Your task to perform on an android device: see sites visited before in the chrome app Image 0: 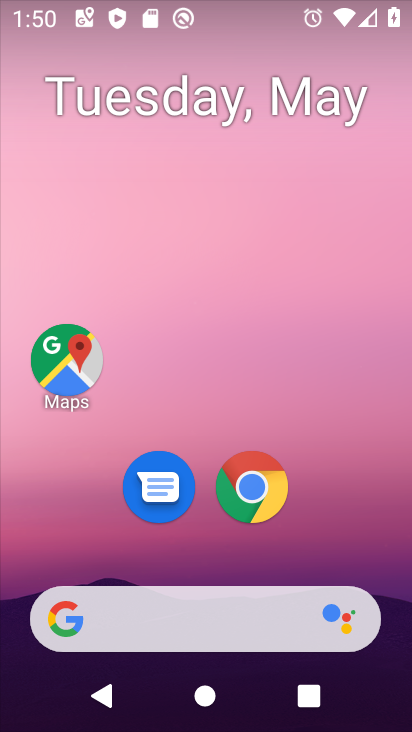
Step 0: drag from (369, 552) to (366, 105)
Your task to perform on an android device: see sites visited before in the chrome app Image 1: 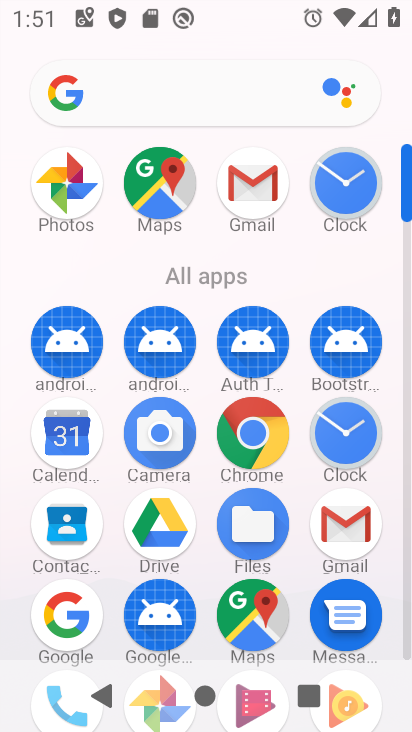
Step 1: click (264, 443)
Your task to perform on an android device: see sites visited before in the chrome app Image 2: 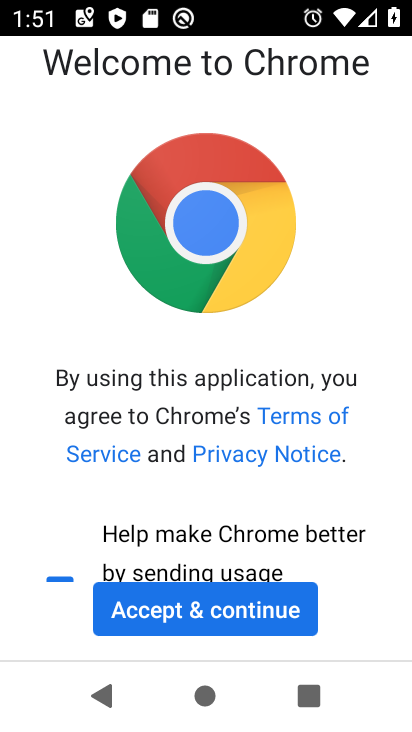
Step 2: click (231, 617)
Your task to perform on an android device: see sites visited before in the chrome app Image 3: 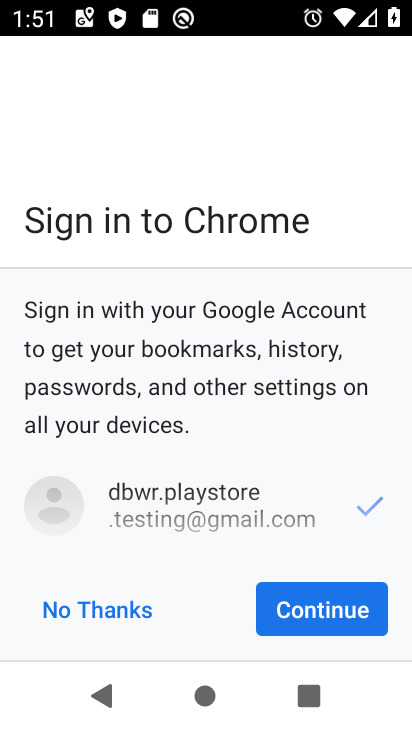
Step 3: click (289, 610)
Your task to perform on an android device: see sites visited before in the chrome app Image 4: 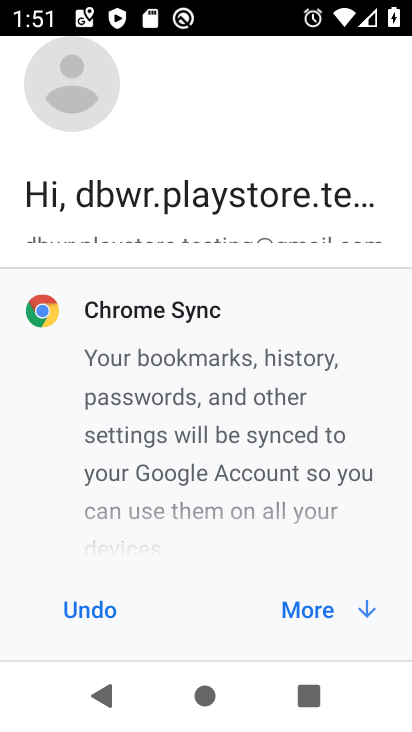
Step 4: click (289, 610)
Your task to perform on an android device: see sites visited before in the chrome app Image 5: 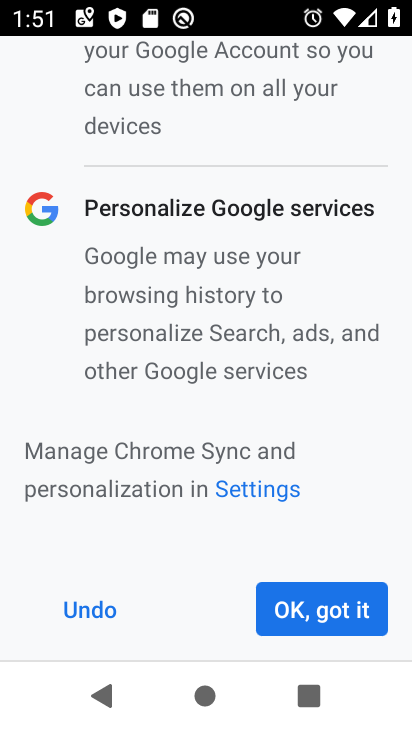
Step 5: click (289, 610)
Your task to perform on an android device: see sites visited before in the chrome app Image 6: 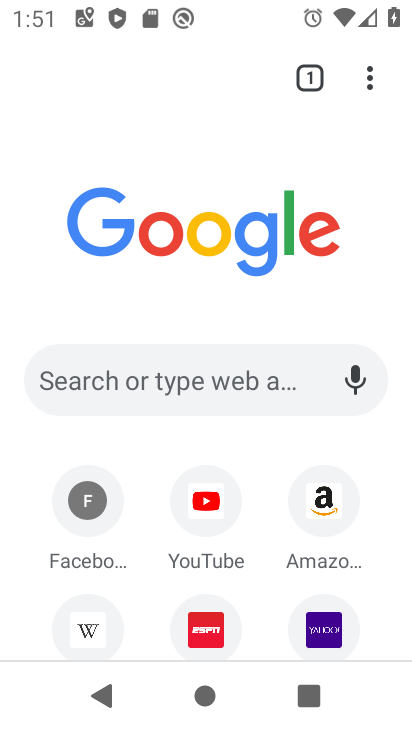
Step 6: click (368, 86)
Your task to perform on an android device: see sites visited before in the chrome app Image 7: 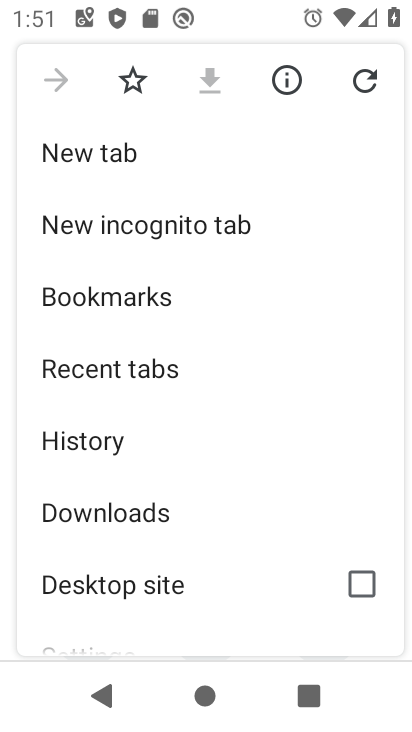
Step 7: click (99, 443)
Your task to perform on an android device: see sites visited before in the chrome app Image 8: 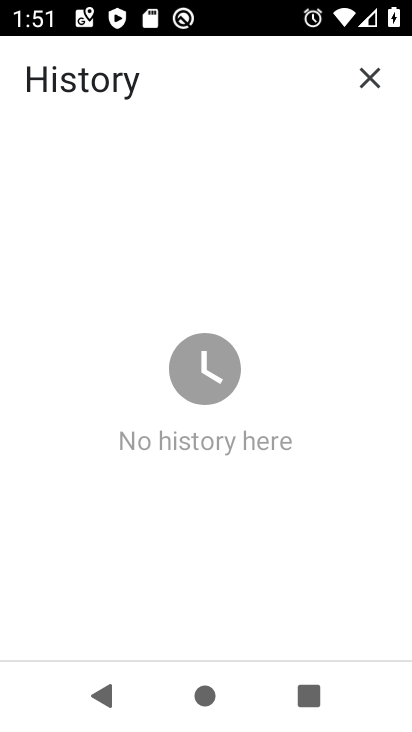
Step 8: task complete